Your task to perform on an android device: set the timer Image 0: 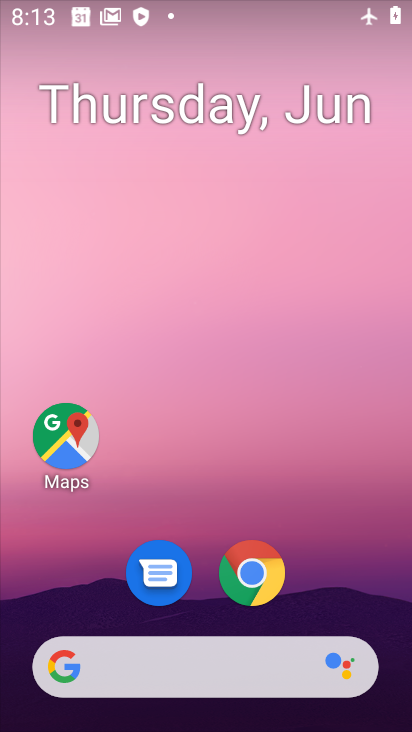
Step 0: drag from (365, 613) to (299, 207)
Your task to perform on an android device: set the timer Image 1: 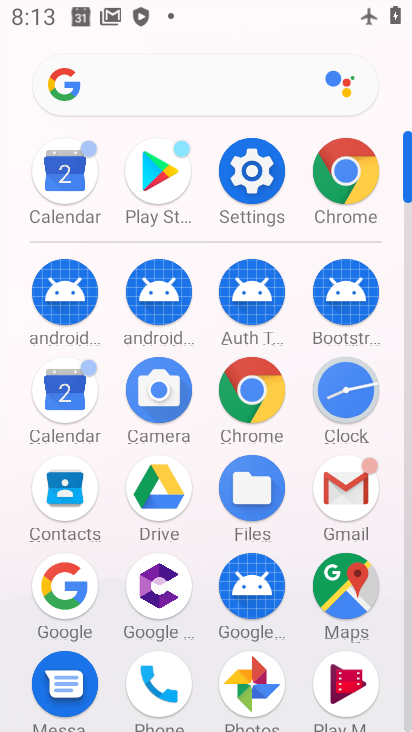
Step 1: click (240, 176)
Your task to perform on an android device: set the timer Image 2: 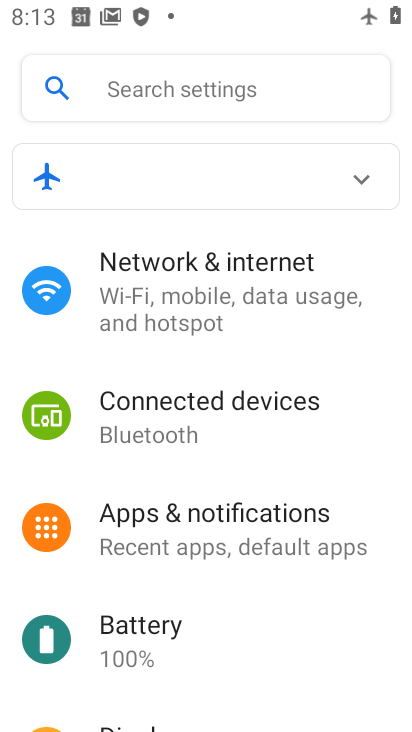
Step 2: drag from (212, 560) to (210, 327)
Your task to perform on an android device: set the timer Image 3: 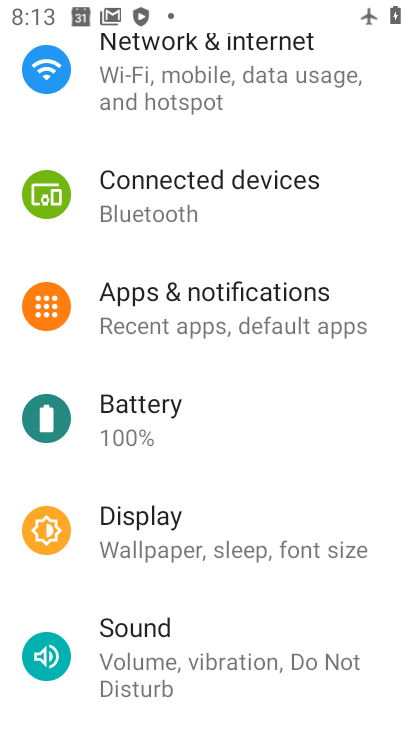
Step 3: press home button
Your task to perform on an android device: set the timer Image 4: 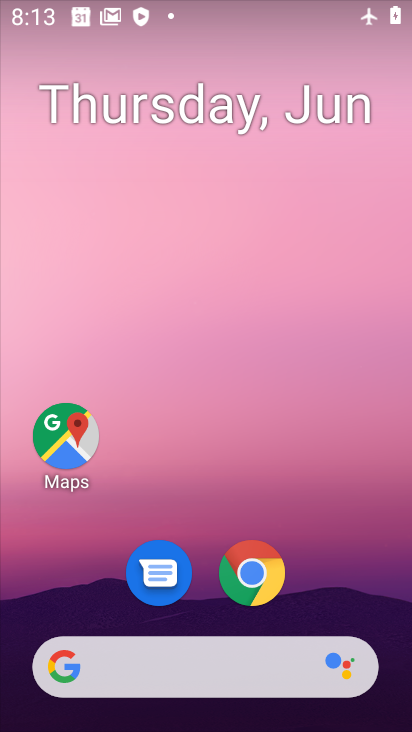
Step 4: drag from (220, 484) to (235, 164)
Your task to perform on an android device: set the timer Image 5: 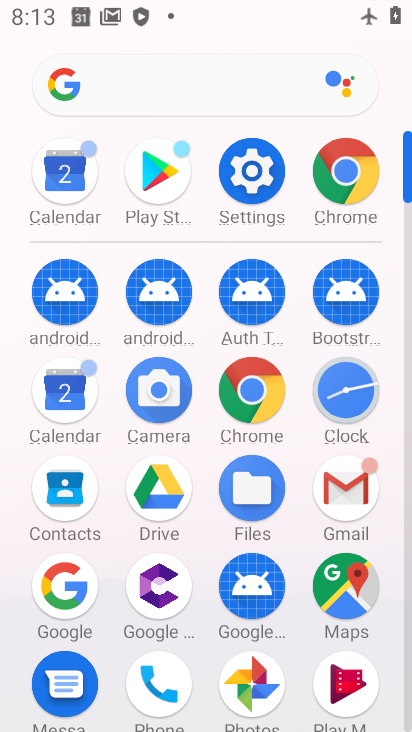
Step 5: click (341, 389)
Your task to perform on an android device: set the timer Image 6: 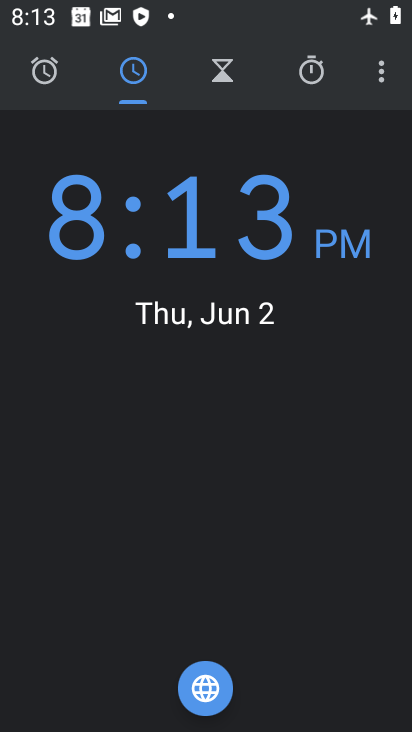
Step 6: click (317, 79)
Your task to perform on an android device: set the timer Image 7: 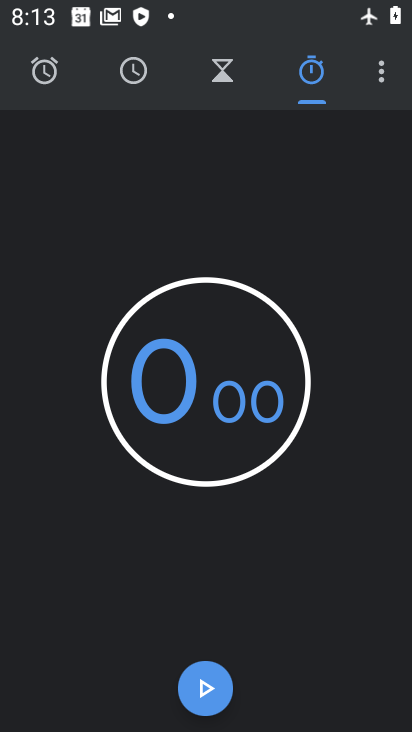
Step 7: click (190, 695)
Your task to perform on an android device: set the timer Image 8: 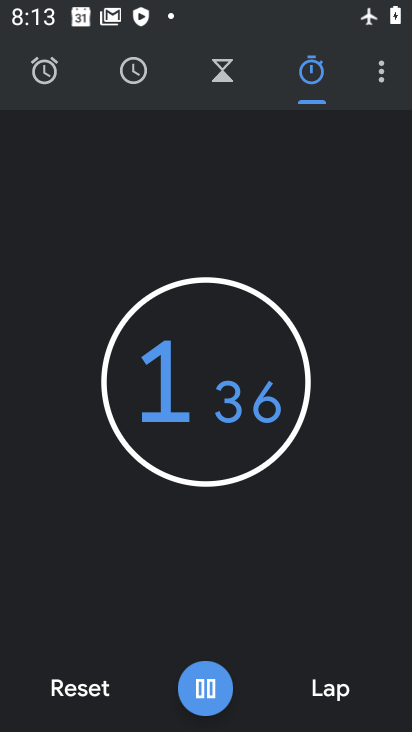
Step 8: click (208, 69)
Your task to perform on an android device: set the timer Image 9: 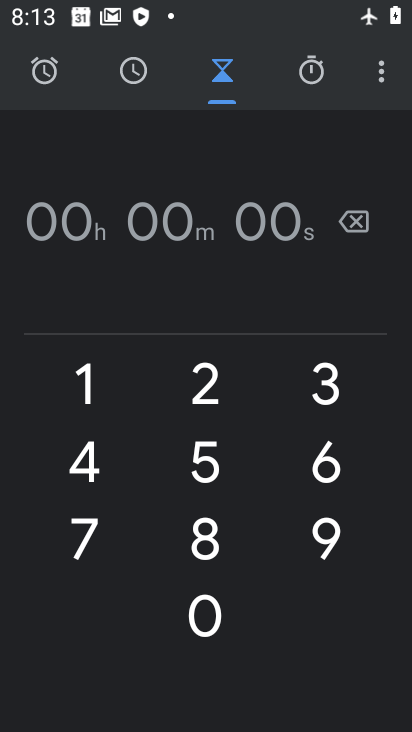
Step 9: click (162, 216)
Your task to perform on an android device: set the timer Image 10: 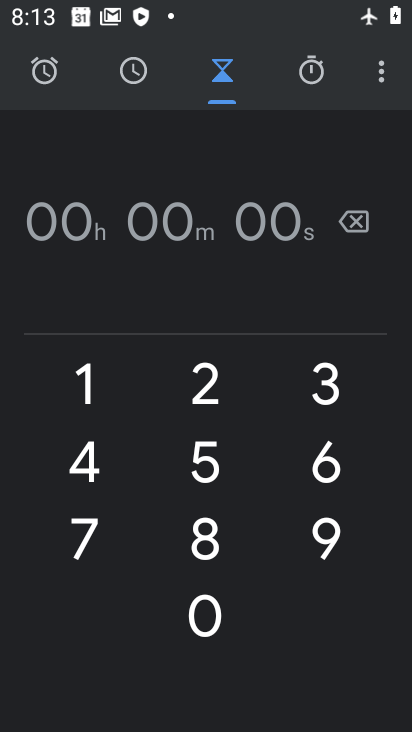
Step 10: type "0666766"
Your task to perform on an android device: set the timer Image 11: 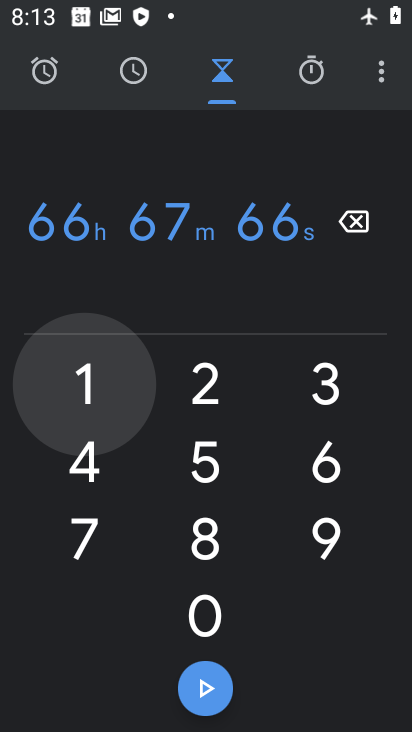
Step 11: task complete